Your task to perform on an android device: open the mobile data screen to see how much data has been used Image 0: 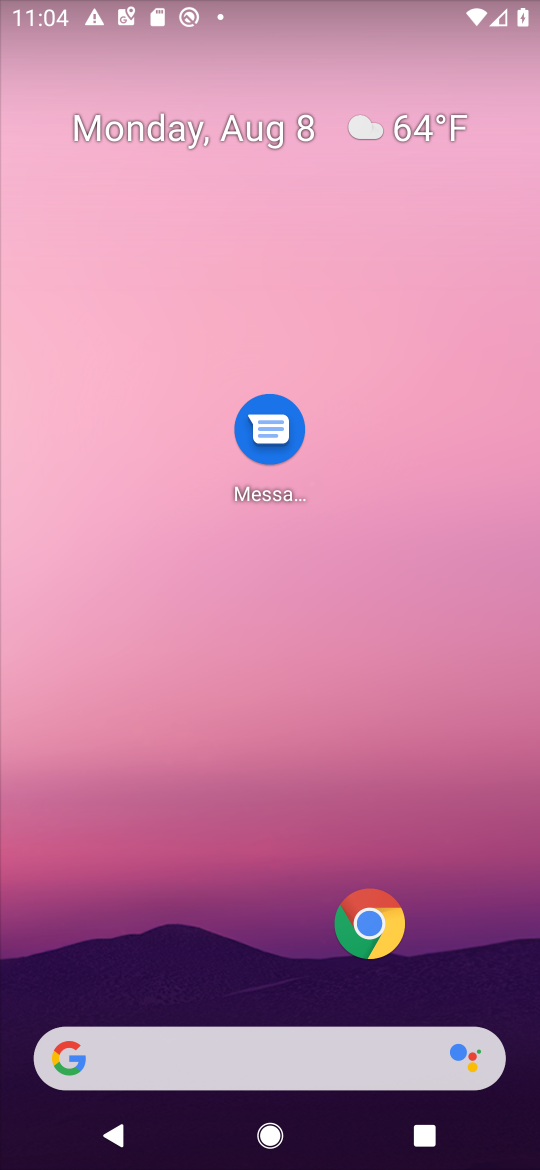
Step 0: drag from (103, 754) to (305, 289)
Your task to perform on an android device: open the mobile data screen to see how much data has been used Image 1: 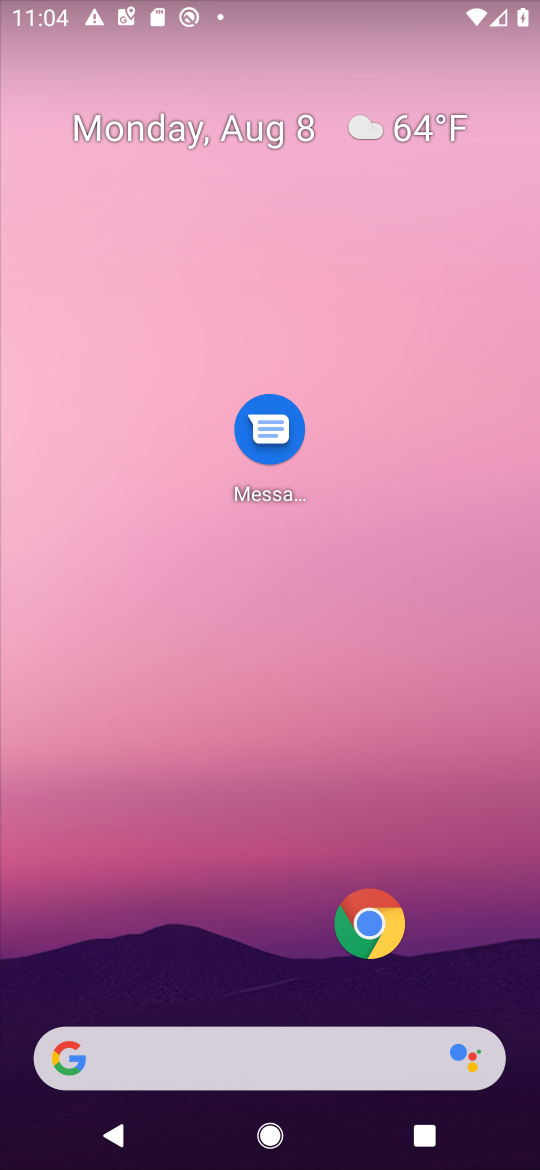
Step 1: drag from (30, 1121) to (303, 275)
Your task to perform on an android device: open the mobile data screen to see how much data has been used Image 2: 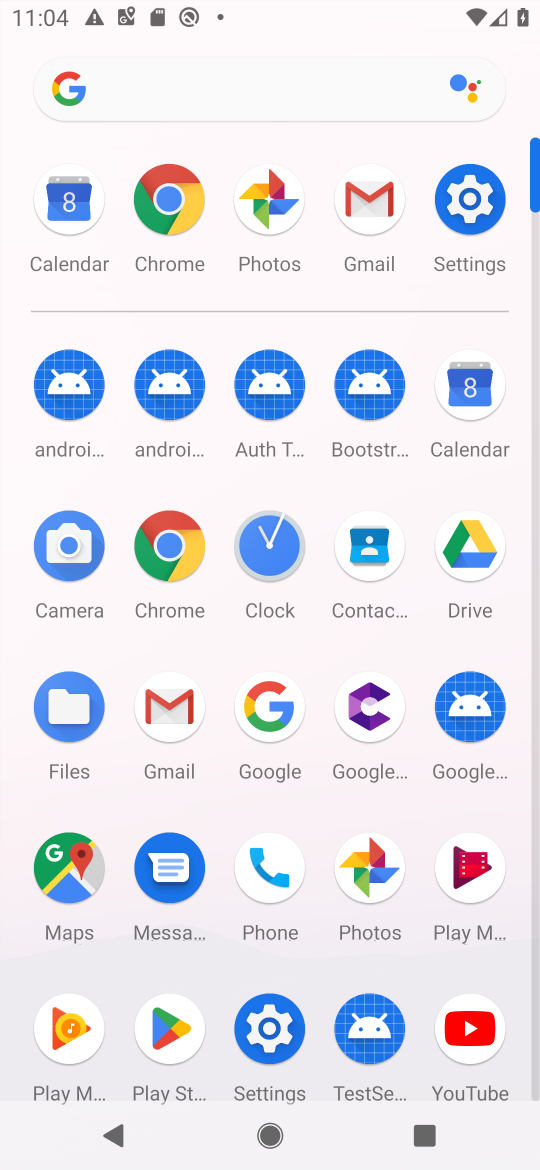
Step 2: click (239, 1020)
Your task to perform on an android device: open the mobile data screen to see how much data has been used Image 3: 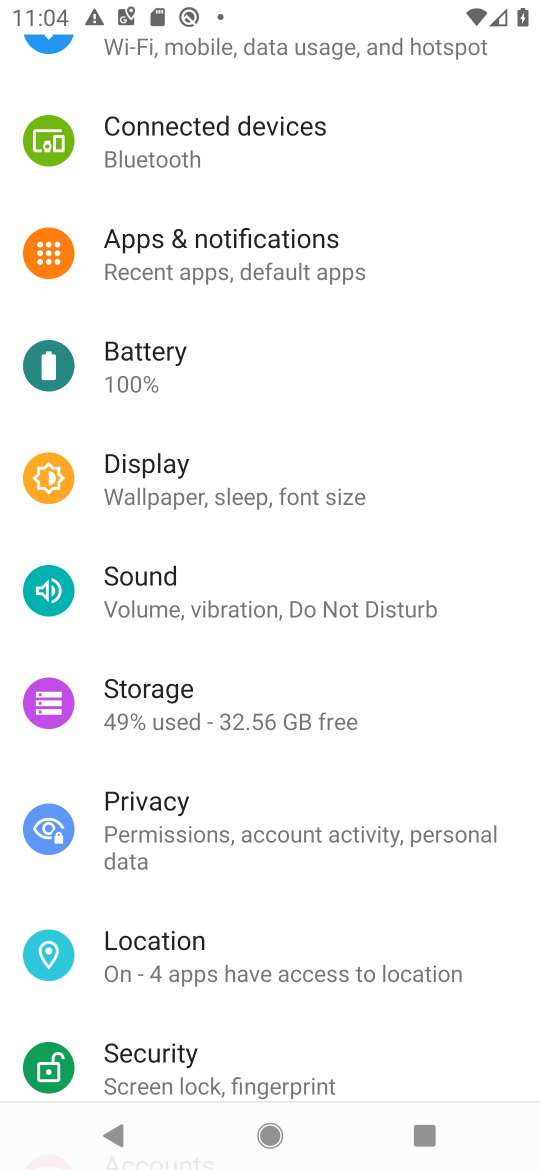
Step 3: drag from (452, 79) to (461, 700)
Your task to perform on an android device: open the mobile data screen to see how much data has been used Image 4: 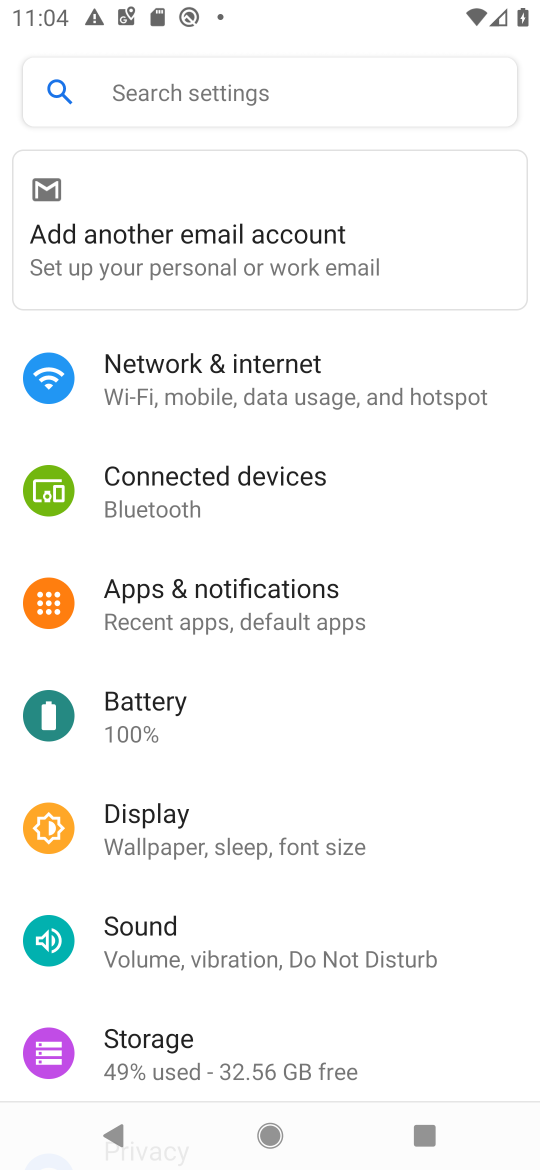
Step 4: click (252, 399)
Your task to perform on an android device: open the mobile data screen to see how much data has been used Image 5: 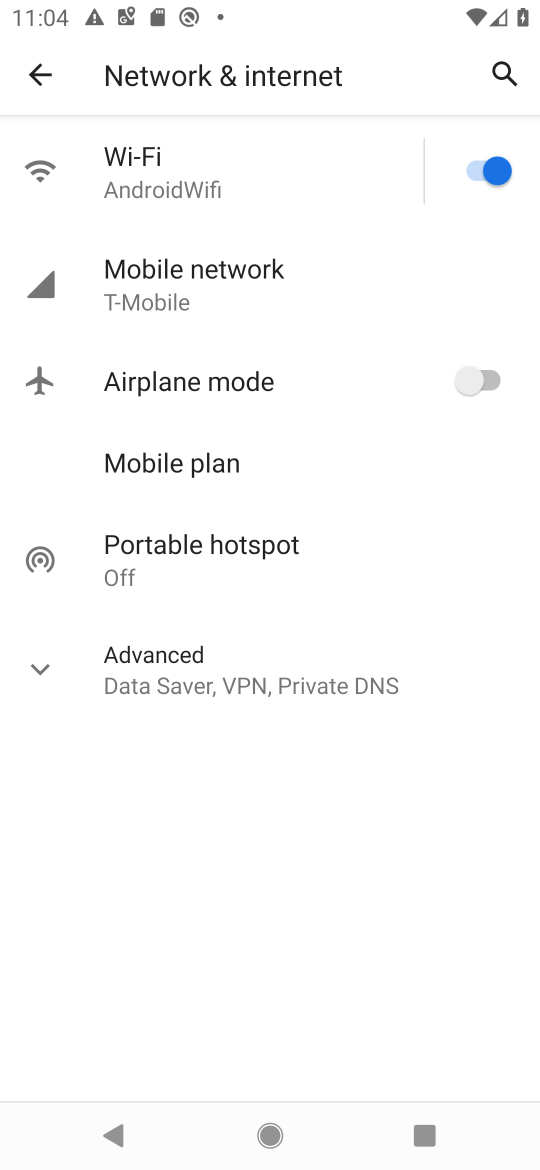
Step 5: click (167, 678)
Your task to perform on an android device: open the mobile data screen to see how much data has been used Image 6: 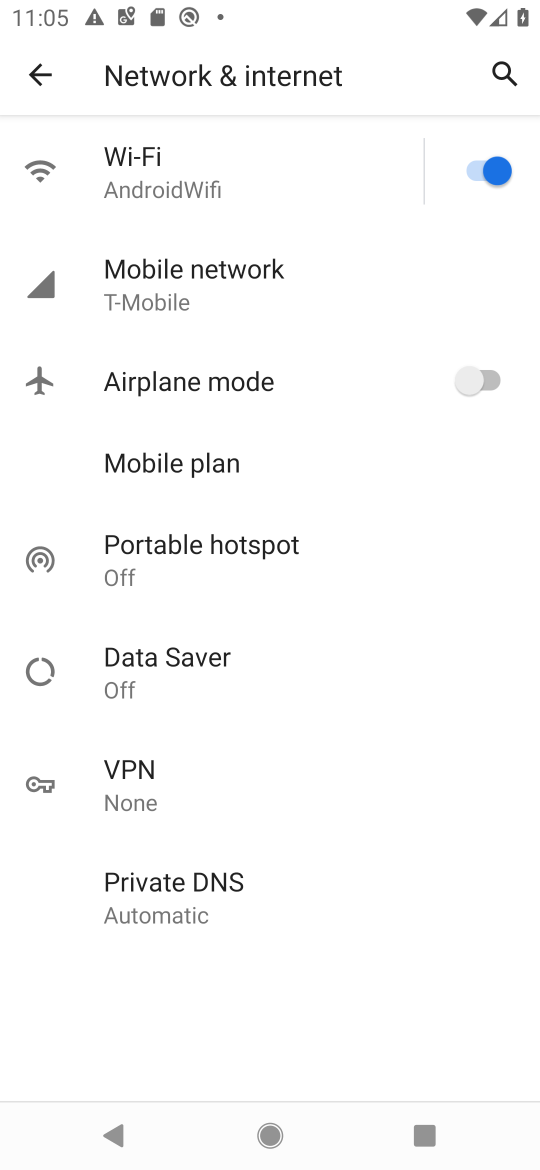
Step 6: click (222, 289)
Your task to perform on an android device: open the mobile data screen to see how much data has been used Image 7: 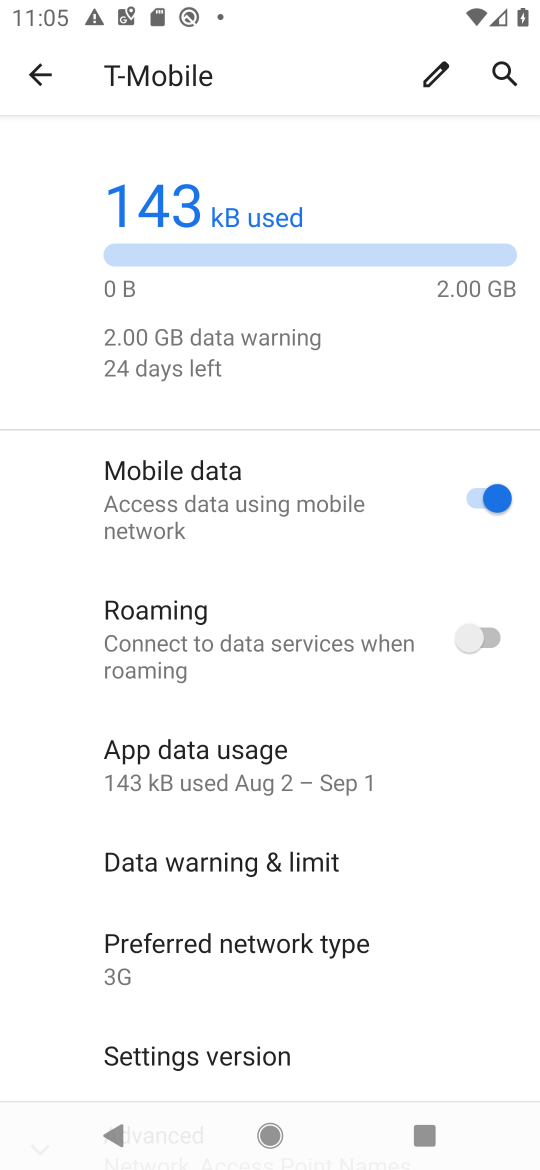
Step 7: task complete